Your task to perform on an android device: Is it going to rain today? Image 0: 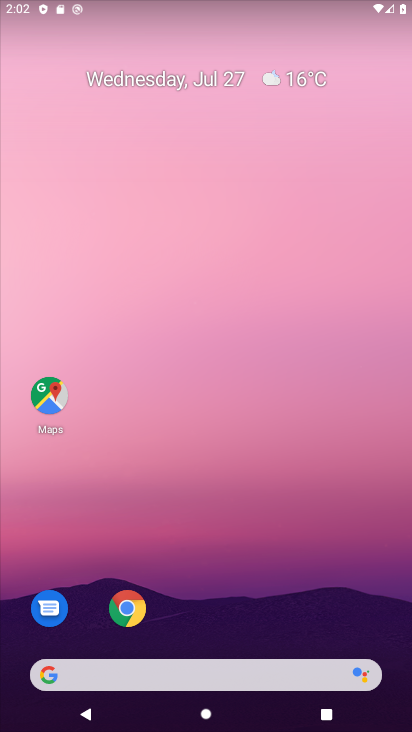
Step 0: click (248, 671)
Your task to perform on an android device: Is it going to rain today? Image 1: 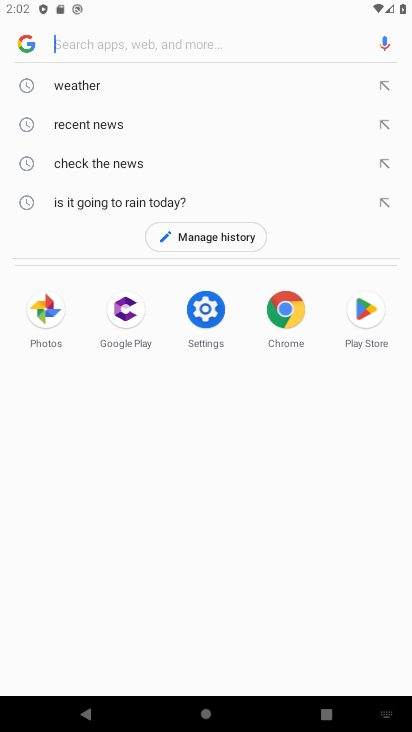
Step 1: type "Is it going to rain today?"
Your task to perform on an android device: Is it going to rain today? Image 2: 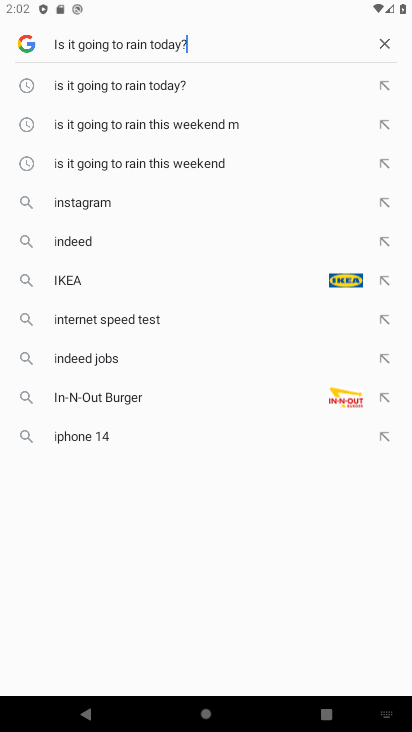
Step 2: press enter
Your task to perform on an android device: Is it going to rain today? Image 3: 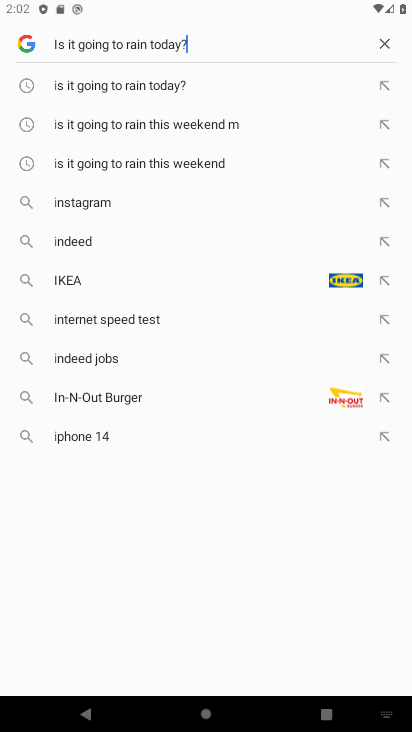
Step 3: type ""
Your task to perform on an android device: Is it going to rain today? Image 4: 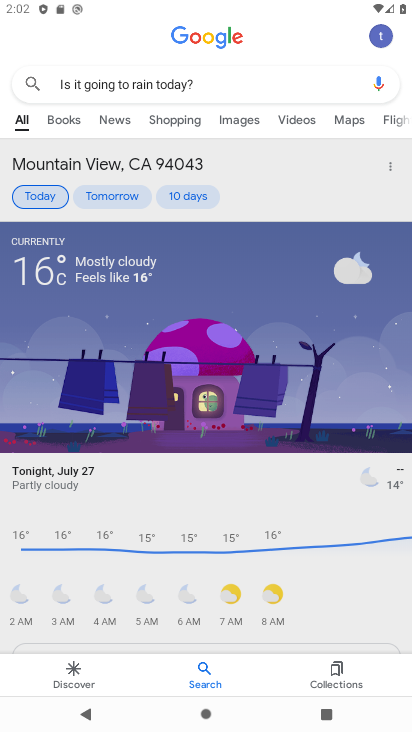
Step 4: task complete